Your task to perform on an android device: Go to privacy settings Image 0: 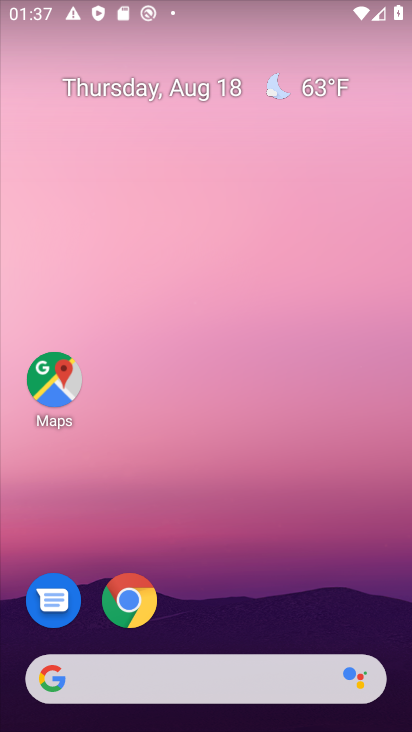
Step 0: drag from (245, 586) to (196, 179)
Your task to perform on an android device: Go to privacy settings Image 1: 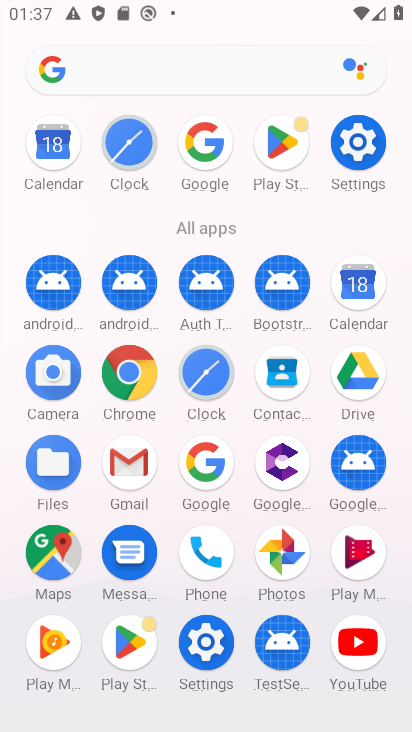
Step 1: click (360, 140)
Your task to perform on an android device: Go to privacy settings Image 2: 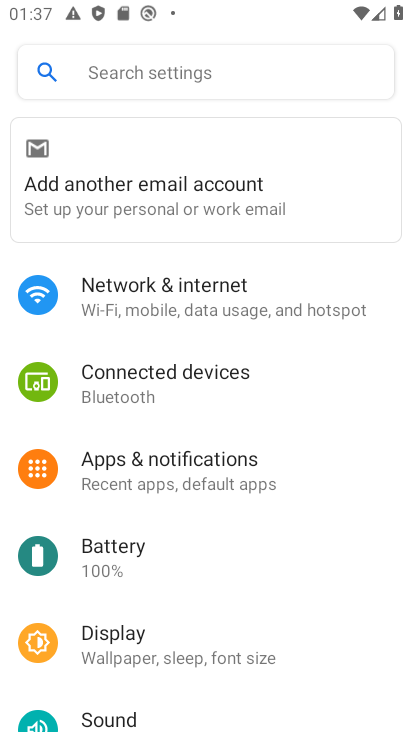
Step 2: drag from (187, 598) to (193, 405)
Your task to perform on an android device: Go to privacy settings Image 3: 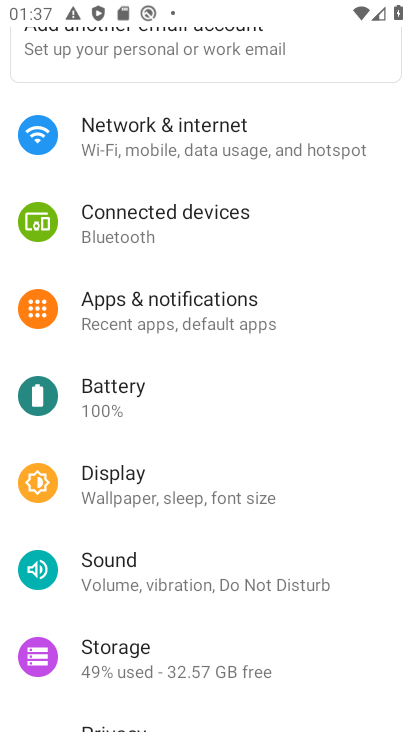
Step 3: drag from (206, 605) to (249, 197)
Your task to perform on an android device: Go to privacy settings Image 4: 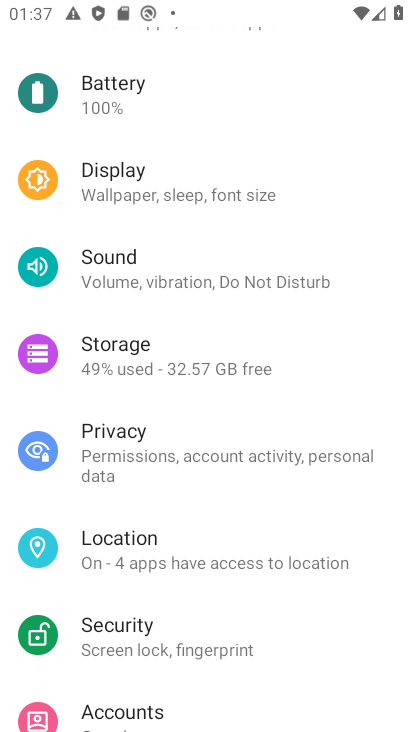
Step 4: drag from (191, 616) to (108, 226)
Your task to perform on an android device: Go to privacy settings Image 5: 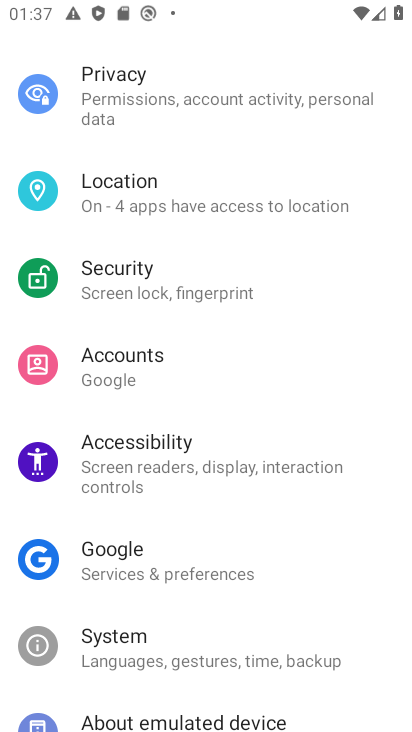
Step 5: click (121, 84)
Your task to perform on an android device: Go to privacy settings Image 6: 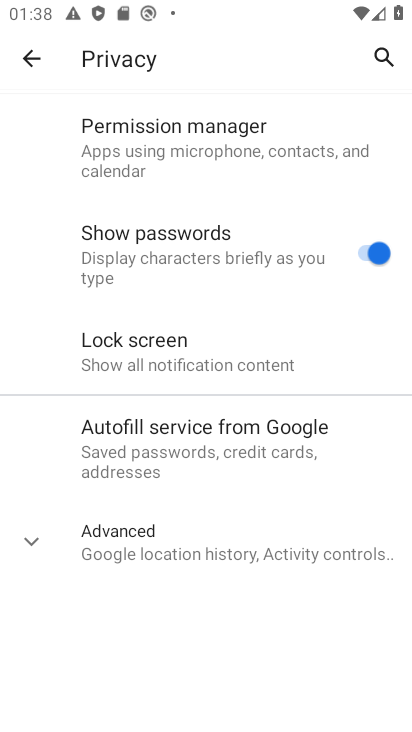
Step 6: task complete